Your task to perform on an android device: Open battery settings Image 0: 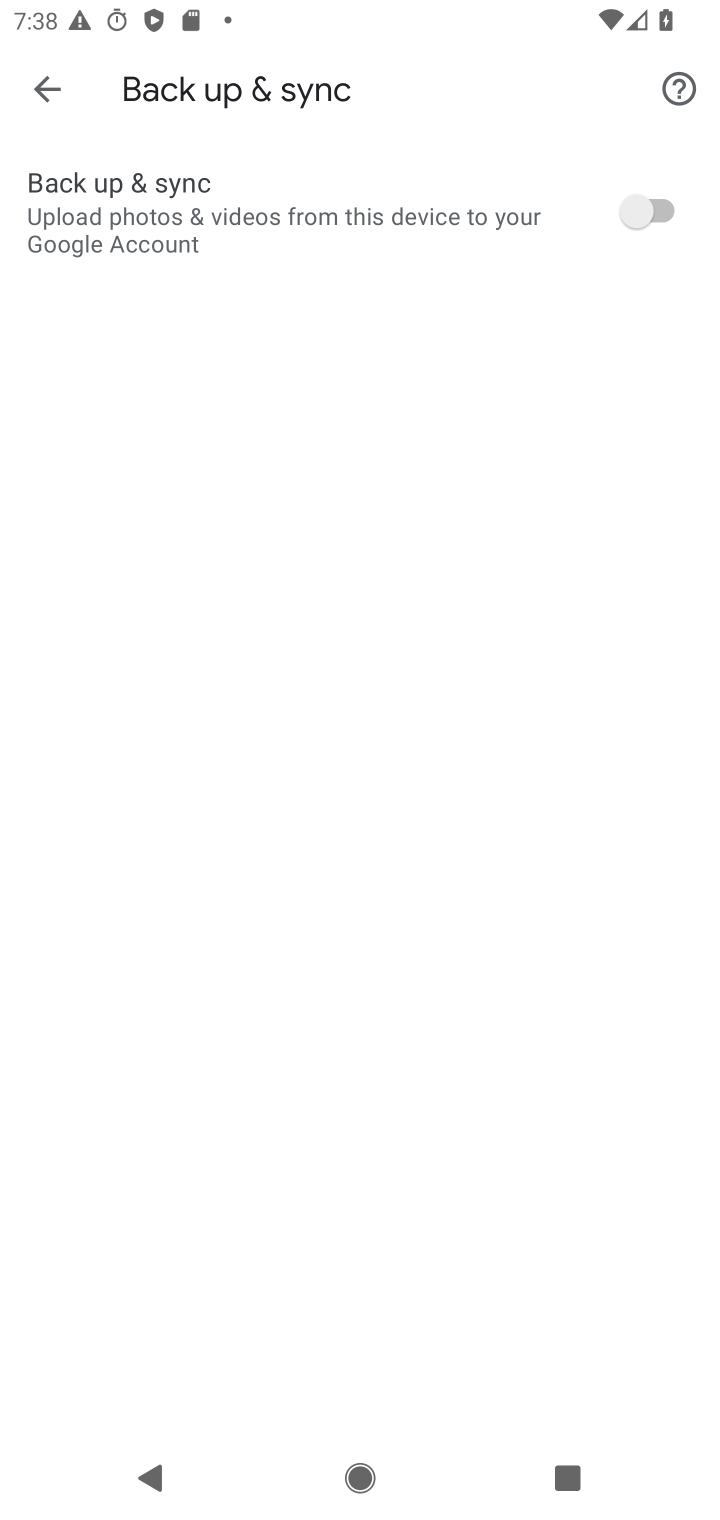
Step 0: press home button
Your task to perform on an android device: Open battery settings Image 1: 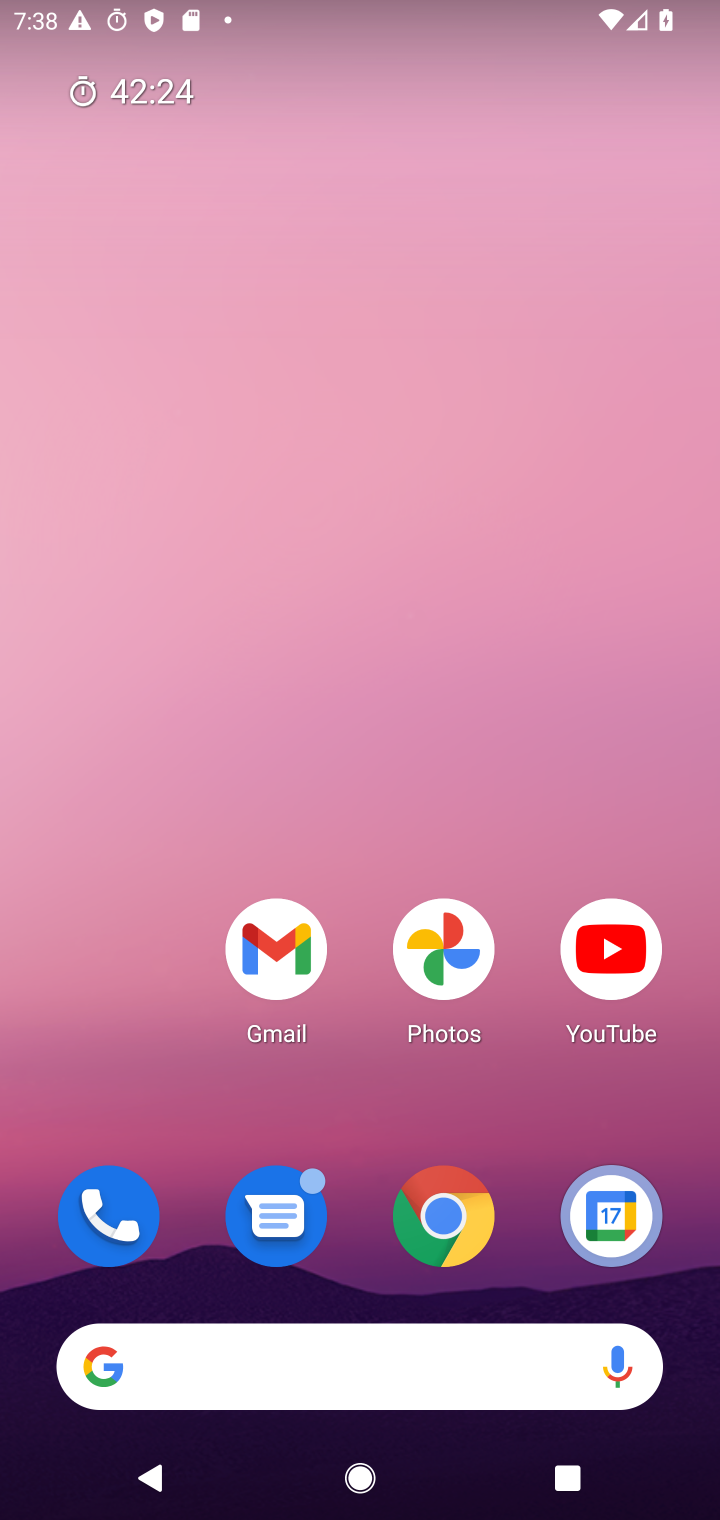
Step 1: drag from (486, 1132) to (546, 277)
Your task to perform on an android device: Open battery settings Image 2: 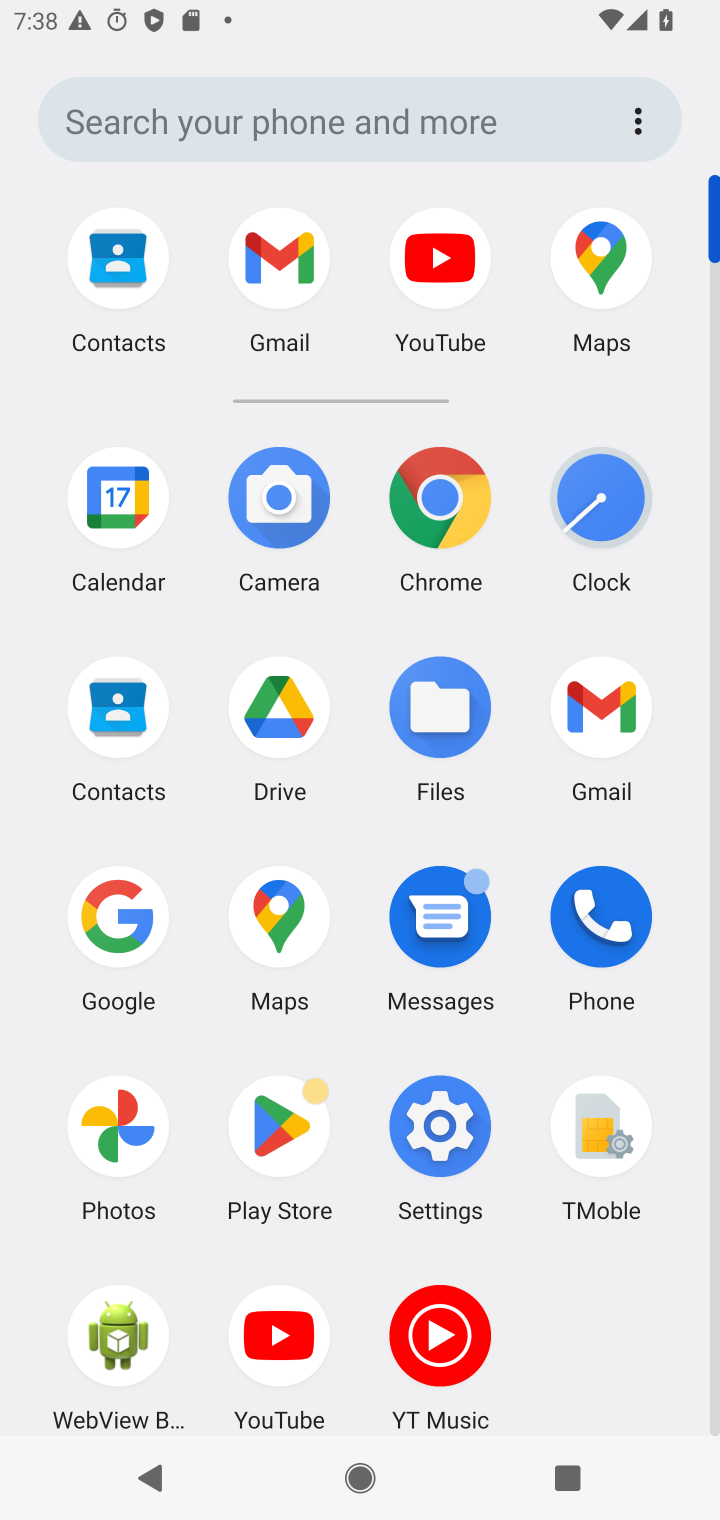
Step 2: click (415, 1112)
Your task to perform on an android device: Open battery settings Image 3: 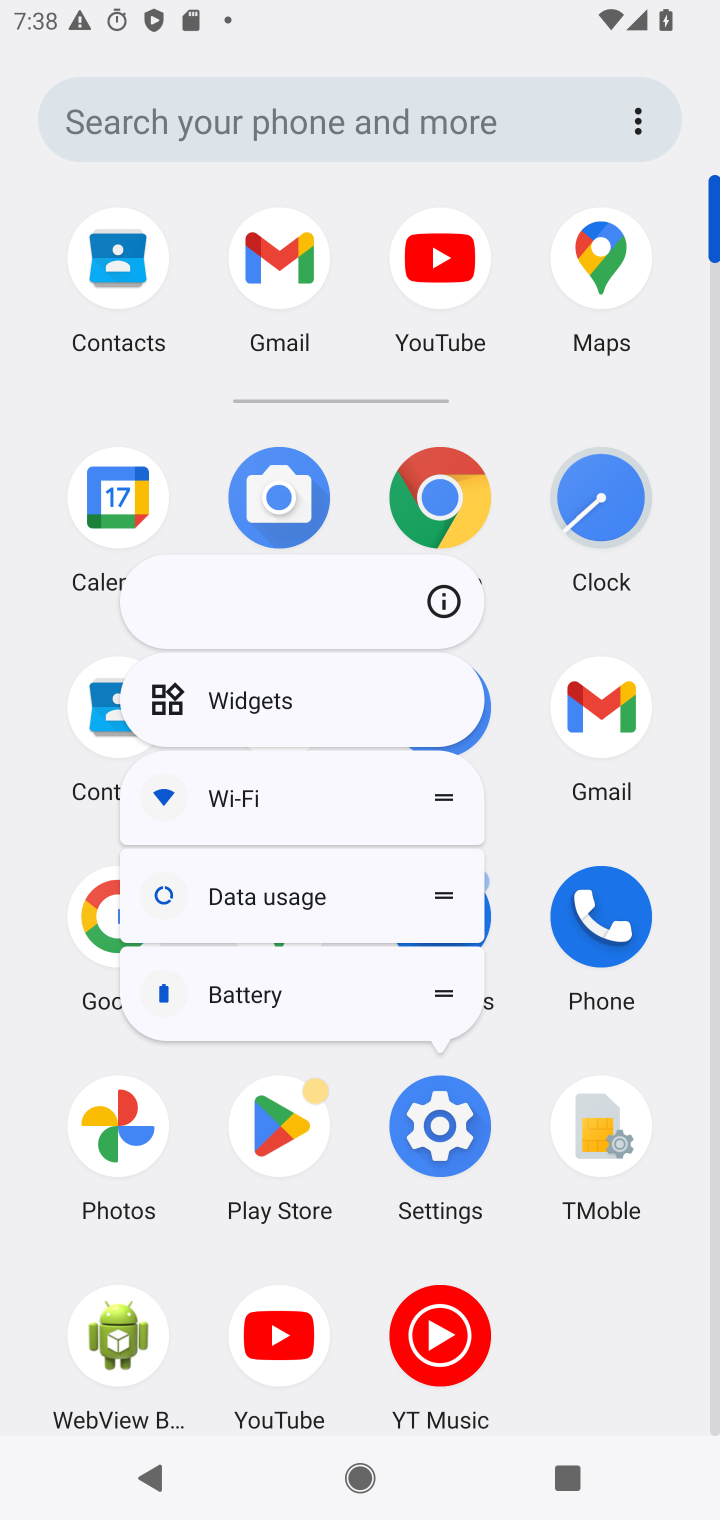
Step 3: click (444, 1145)
Your task to perform on an android device: Open battery settings Image 4: 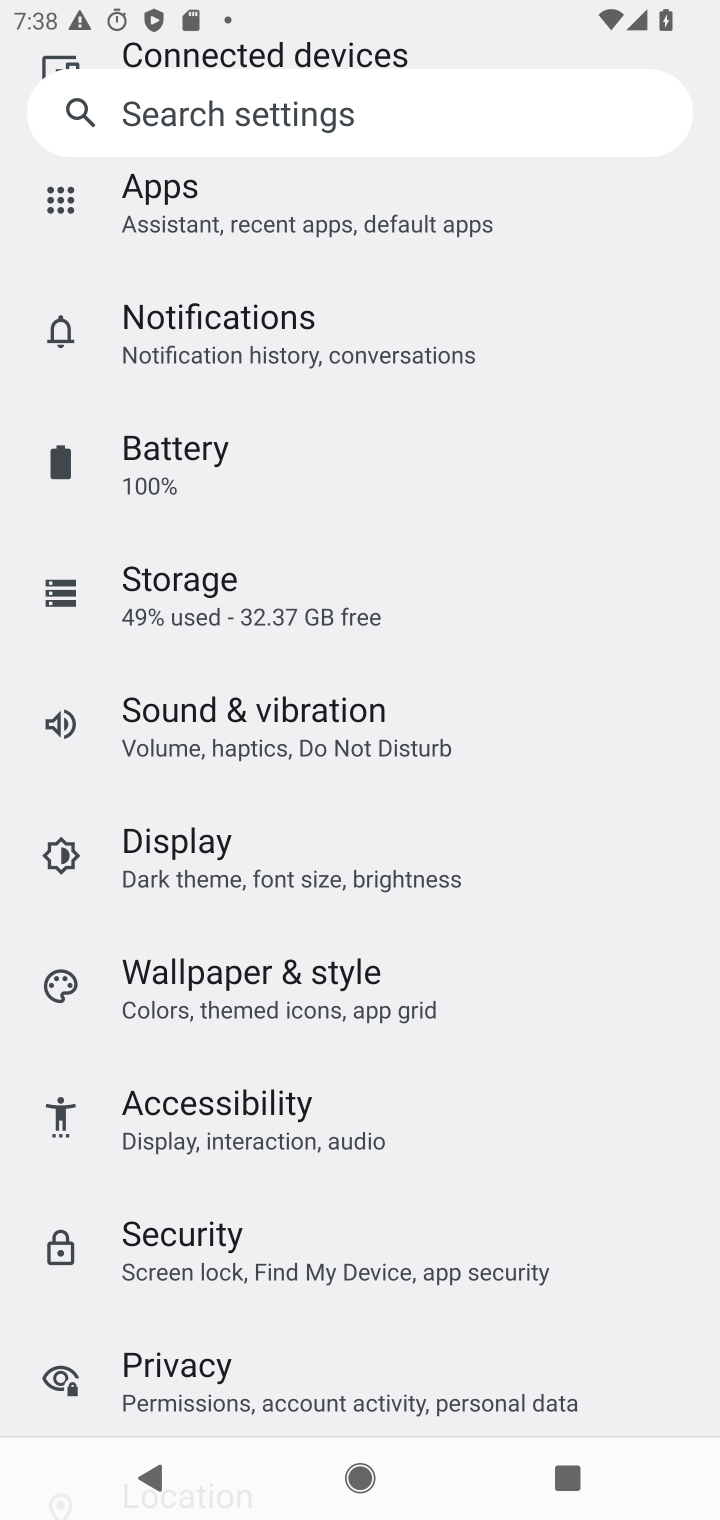
Step 4: click (209, 445)
Your task to perform on an android device: Open battery settings Image 5: 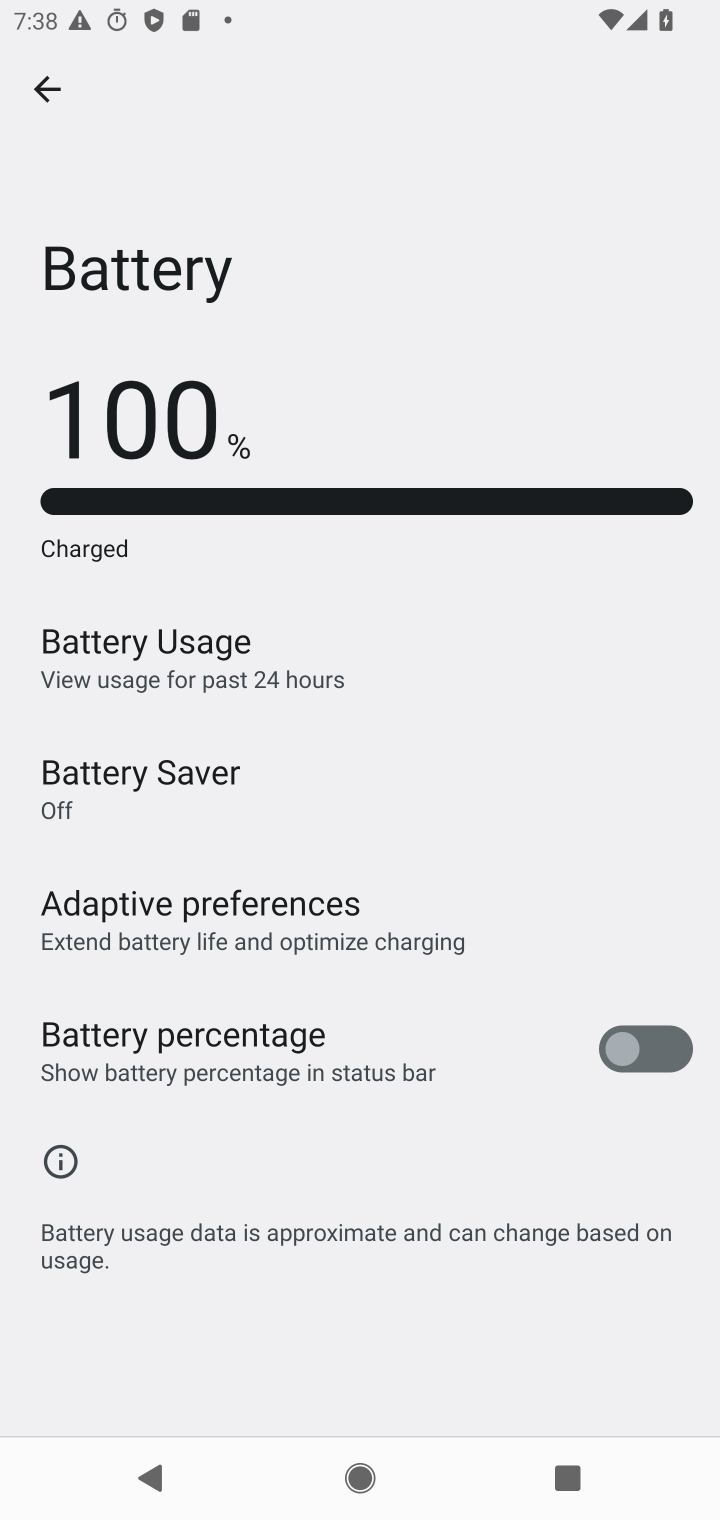
Step 5: task complete